Your task to perform on an android device: See recent photos Image 0: 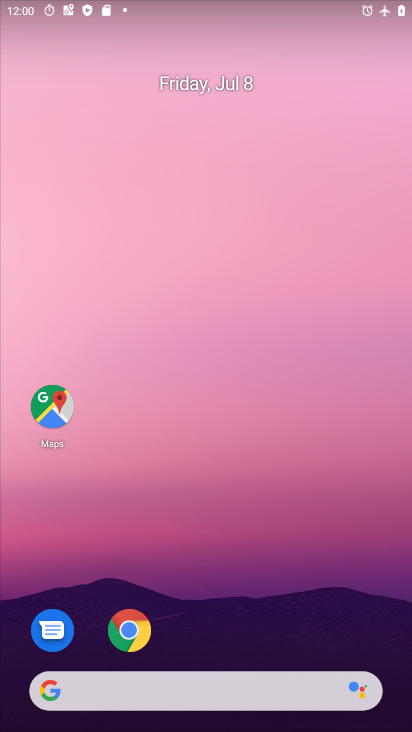
Step 0: drag from (193, 637) to (161, 201)
Your task to perform on an android device: See recent photos Image 1: 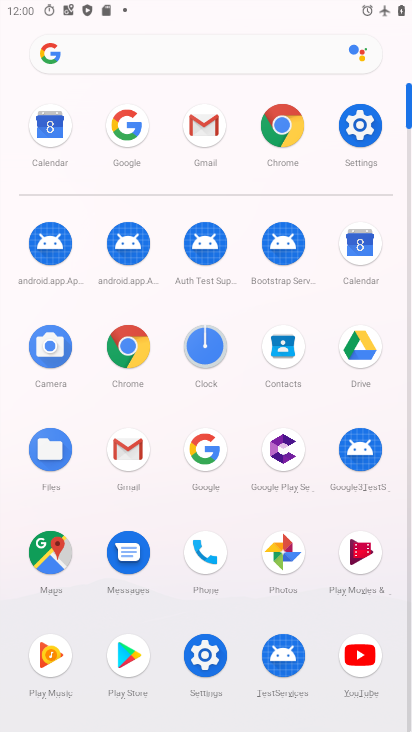
Step 1: click (283, 557)
Your task to perform on an android device: See recent photos Image 2: 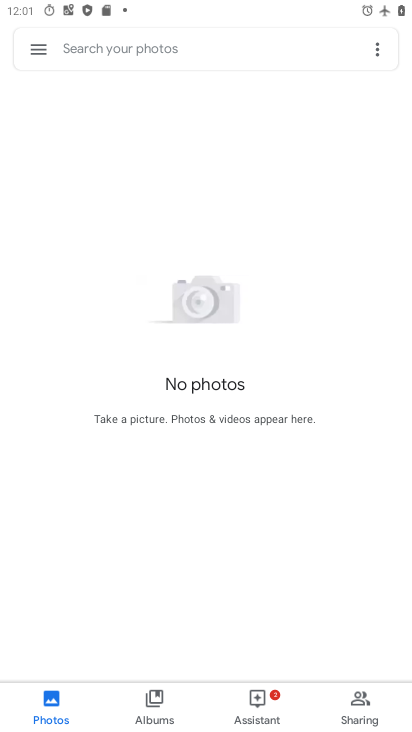
Step 2: task complete